Your task to perform on an android device: toggle notifications settings in the gmail app Image 0: 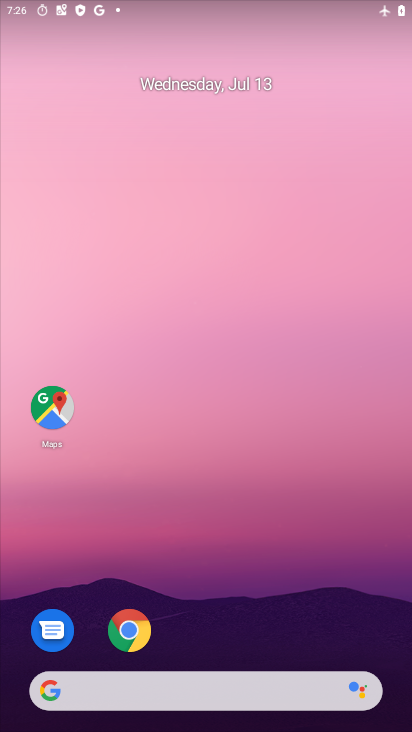
Step 0: drag from (331, 596) to (231, 115)
Your task to perform on an android device: toggle notifications settings in the gmail app Image 1: 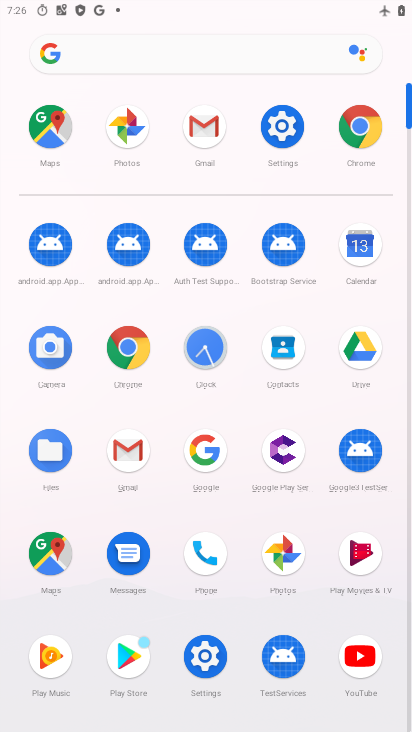
Step 1: click (130, 447)
Your task to perform on an android device: toggle notifications settings in the gmail app Image 2: 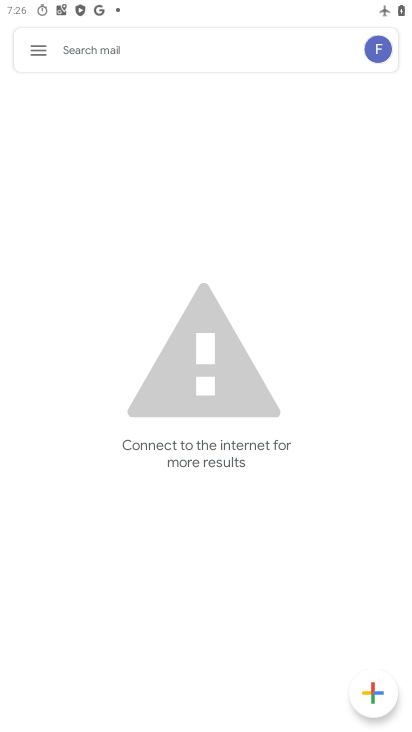
Step 2: click (38, 45)
Your task to perform on an android device: toggle notifications settings in the gmail app Image 3: 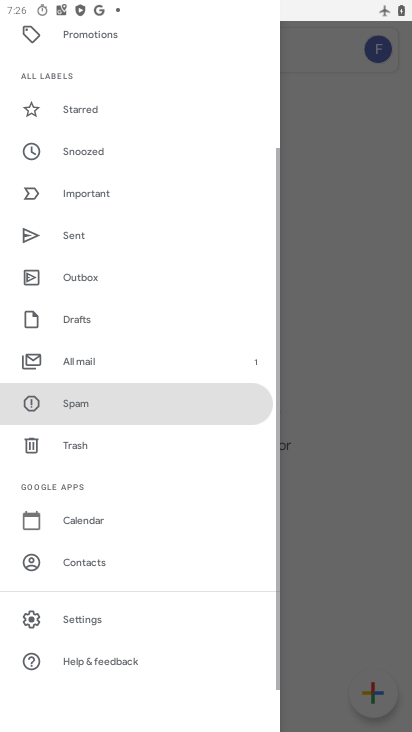
Step 3: click (84, 620)
Your task to perform on an android device: toggle notifications settings in the gmail app Image 4: 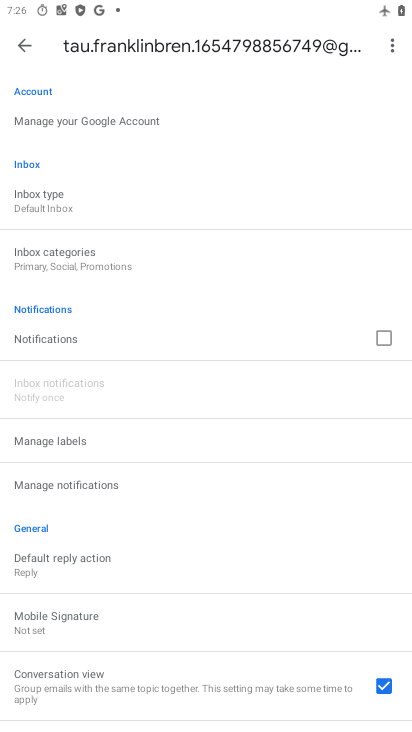
Step 4: click (368, 337)
Your task to perform on an android device: toggle notifications settings in the gmail app Image 5: 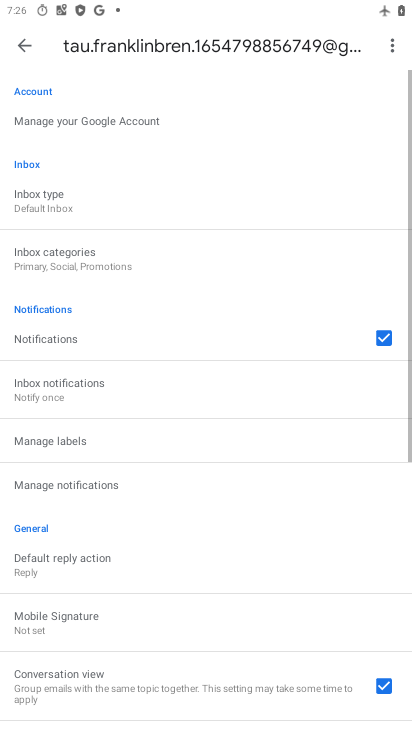
Step 5: task complete